Your task to perform on an android device: Open Android settings Image 0: 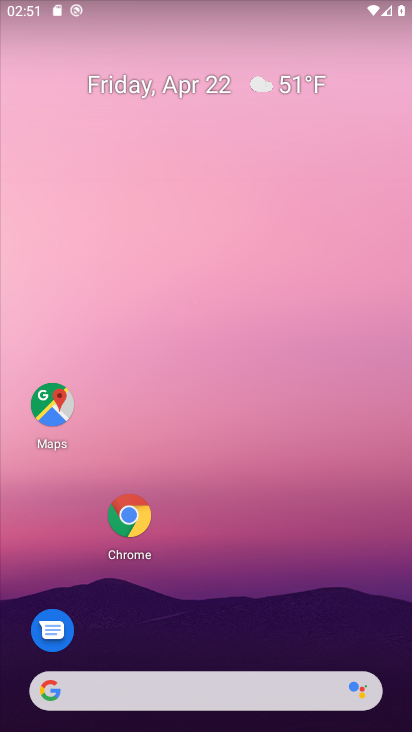
Step 0: drag from (367, 525) to (351, 399)
Your task to perform on an android device: Open Android settings Image 1: 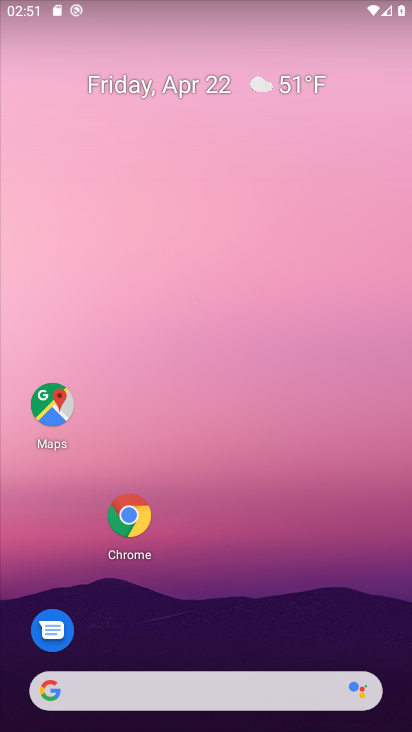
Step 1: drag from (382, 392) to (373, 179)
Your task to perform on an android device: Open Android settings Image 2: 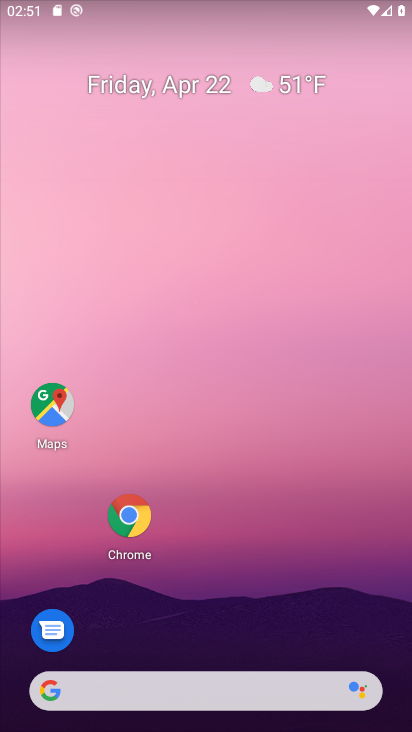
Step 2: drag from (352, 280) to (319, 119)
Your task to perform on an android device: Open Android settings Image 3: 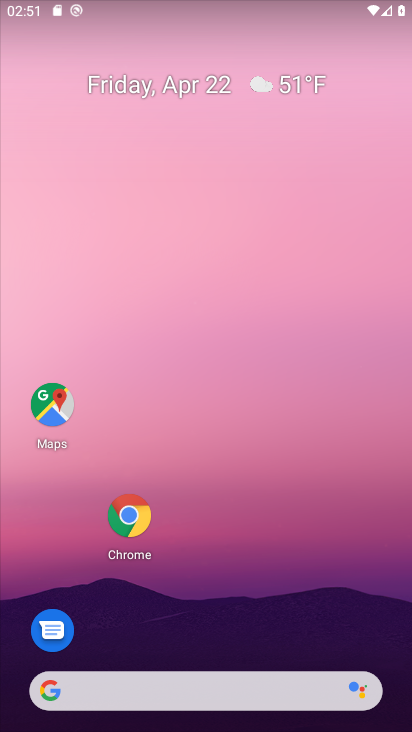
Step 3: drag from (388, 634) to (338, 29)
Your task to perform on an android device: Open Android settings Image 4: 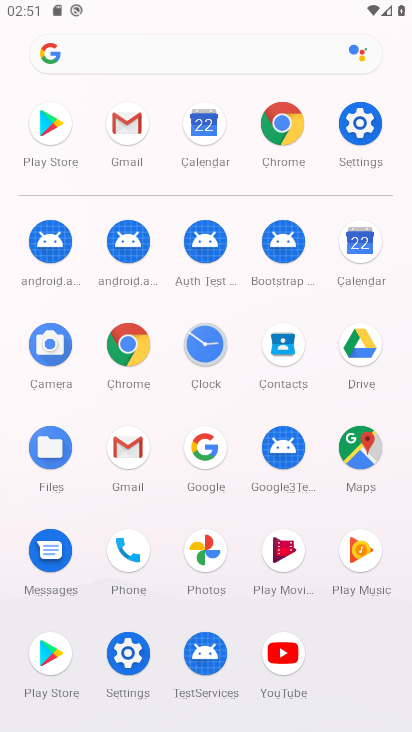
Step 4: click (361, 130)
Your task to perform on an android device: Open Android settings Image 5: 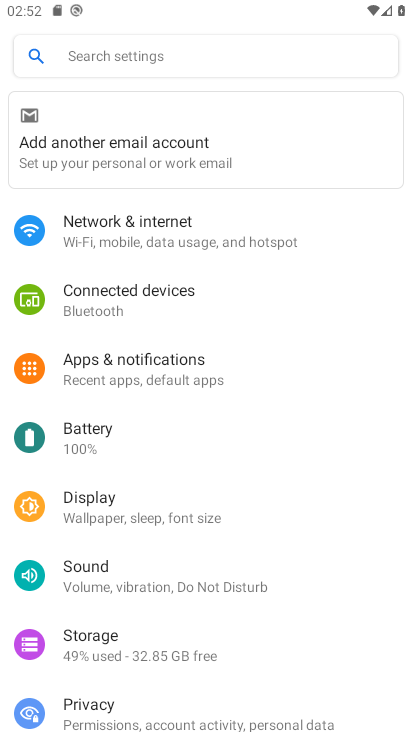
Step 5: task complete